Your task to perform on an android device: Go to privacy settings Image 0: 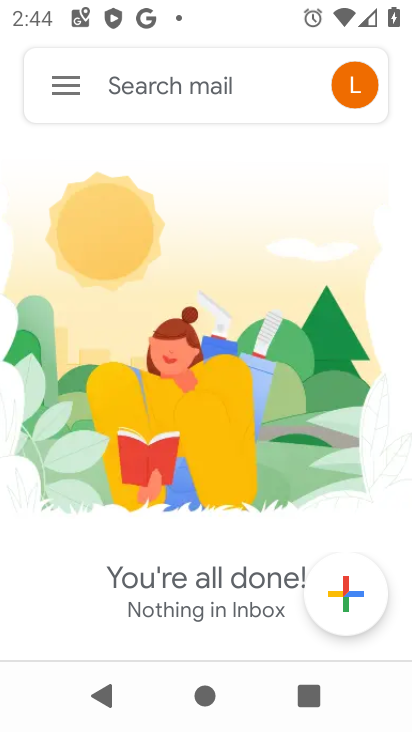
Step 0: press home button
Your task to perform on an android device: Go to privacy settings Image 1: 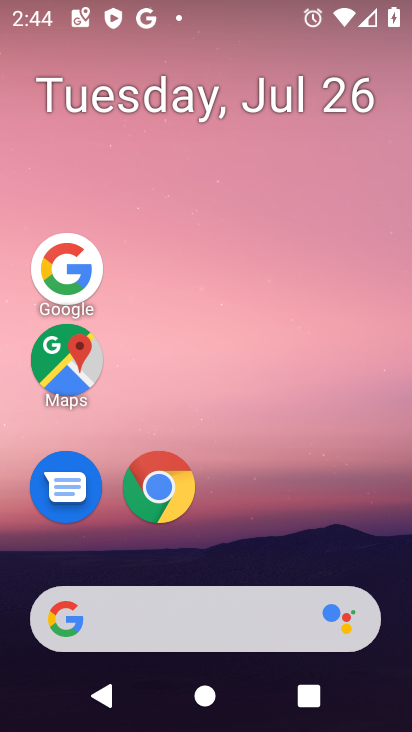
Step 1: drag from (185, 566) to (251, 2)
Your task to perform on an android device: Go to privacy settings Image 2: 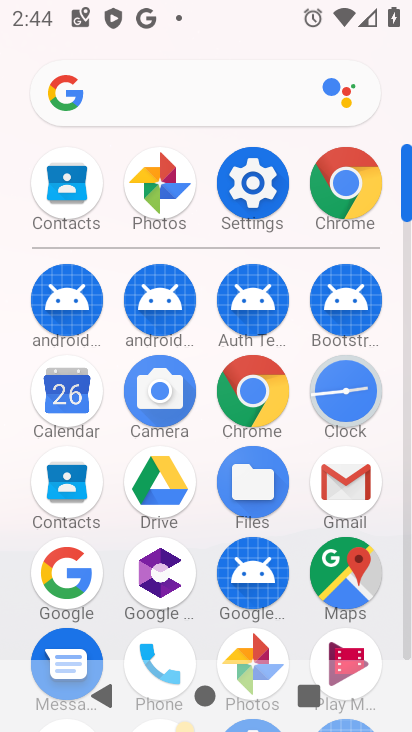
Step 2: click (261, 204)
Your task to perform on an android device: Go to privacy settings Image 3: 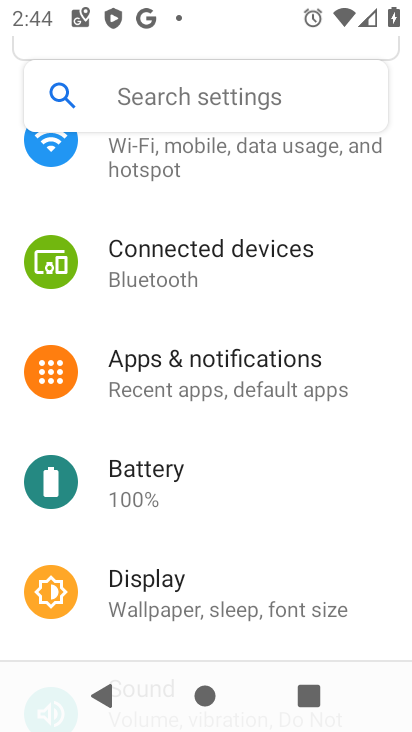
Step 3: drag from (245, 496) to (265, 269)
Your task to perform on an android device: Go to privacy settings Image 4: 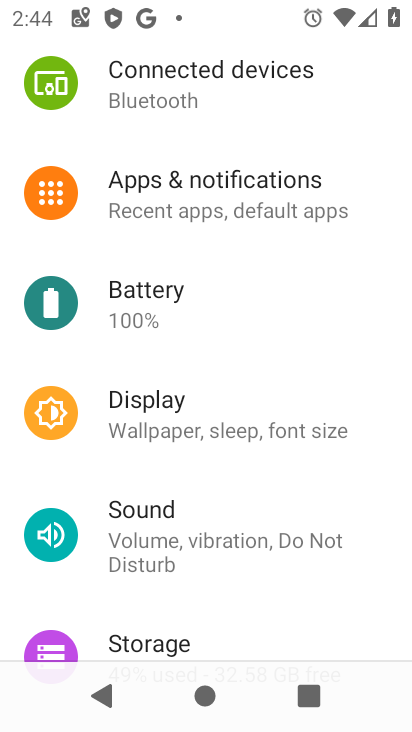
Step 4: drag from (197, 493) to (203, 205)
Your task to perform on an android device: Go to privacy settings Image 5: 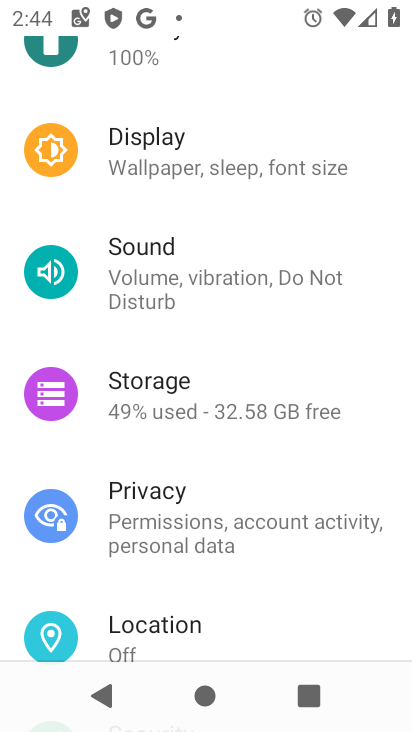
Step 5: click (204, 515)
Your task to perform on an android device: Go to privacy settings Image 6: 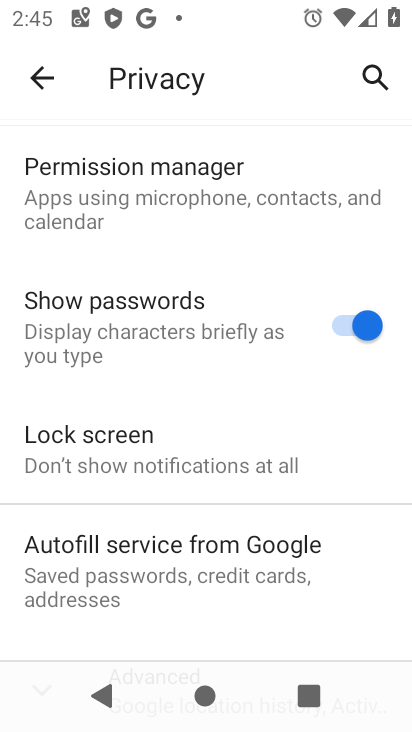
Step 6: task complete